Your task to perform on an android device: Search for sushi restaurants on Maps Image 0: 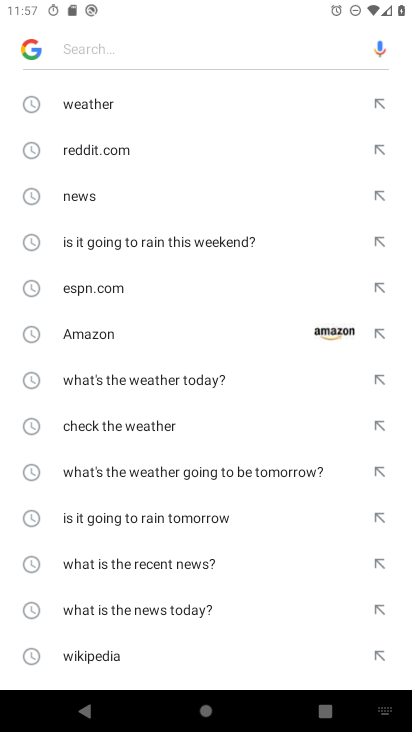
Step 0: press back button
Your task to perform on an android device: Search for sushi restaurants on Maps Image 1: 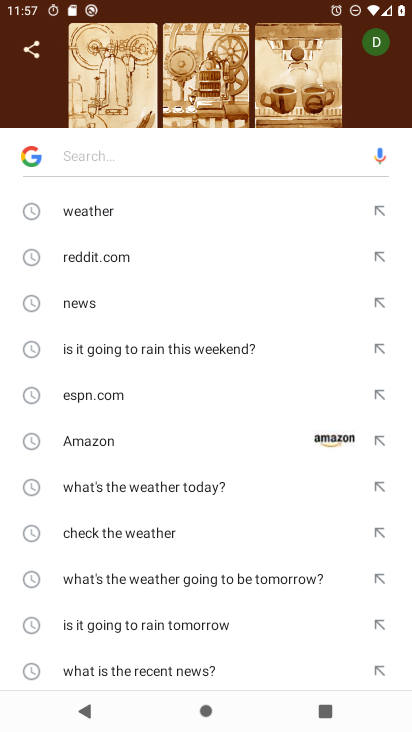
Step 1: press home button
Your task to perform on an android device: Search for sushi restaurants on Maps Image 2: 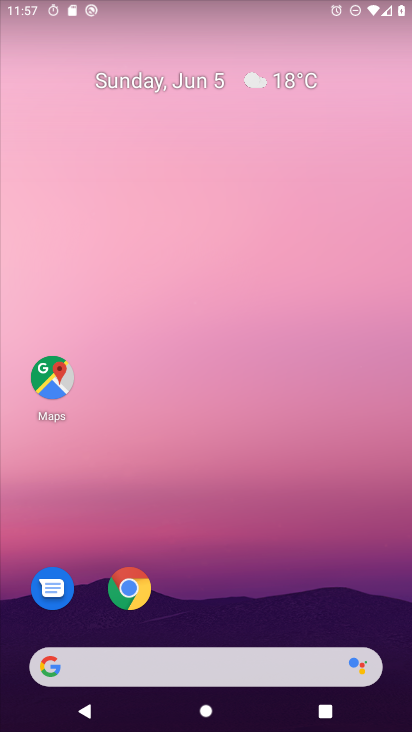
Step 2: drag from (358, 599) to (359, 185)
Your task to perform on an android device: Search for sushi restaurants on Maps Image 3: 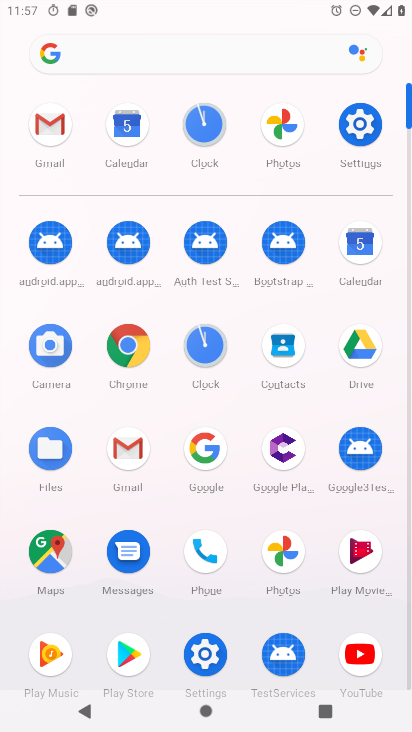
Step 3: click (65, 561)
Your task to perform on an android device: Search for sushi restaurants on Maps Image 4: 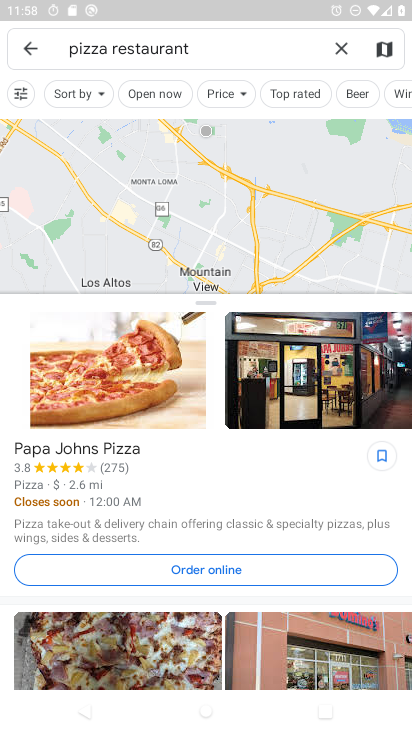
Step 4: click (344, 45)
Your task to perform on an android device: Search for sushi restaurants on Maps Image 5: 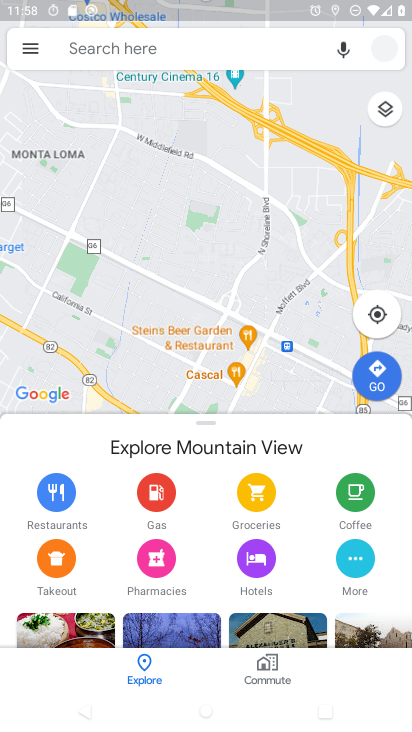
Step 5: click (155, 51)
Your task to perform on an android device: Search for sushi restaurants on Maps Image 6: 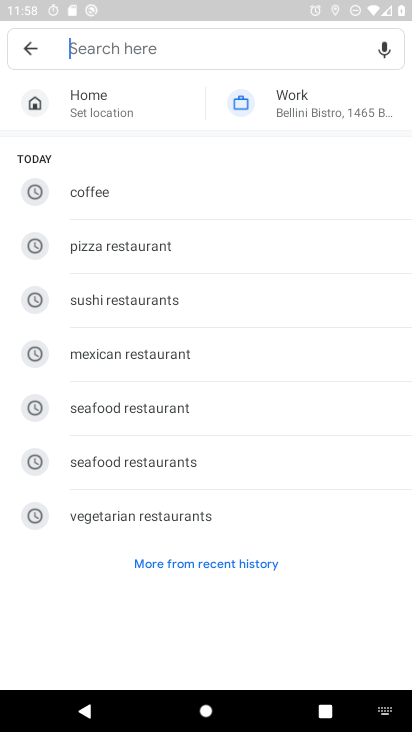
Step 6: click (183, 308)
Your task to perform on an android device: Search for sushi restaurants on Maps Image 7: 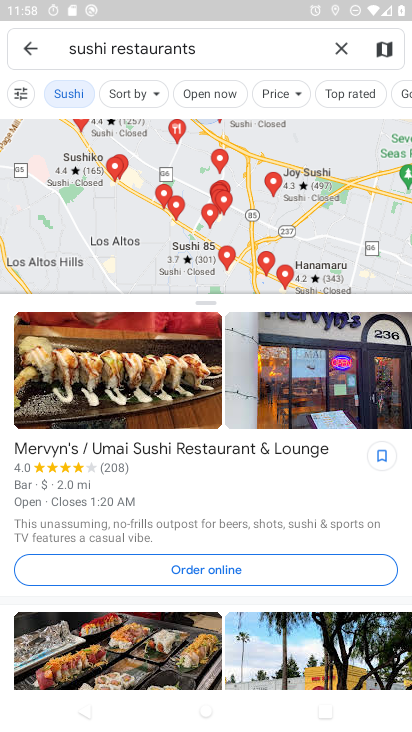
Step 7: task complete